Your task to perform on an android device: check battery use Image 0: 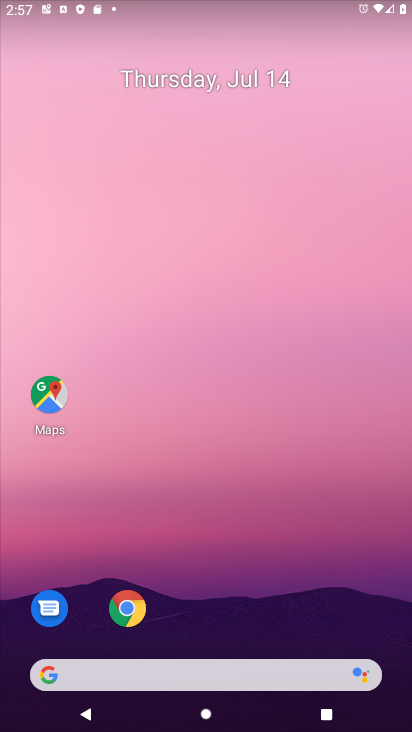
Step 0: drag from (341, 434) to (291, 57)
Your task to perform on an android device: check battery use Image 1: 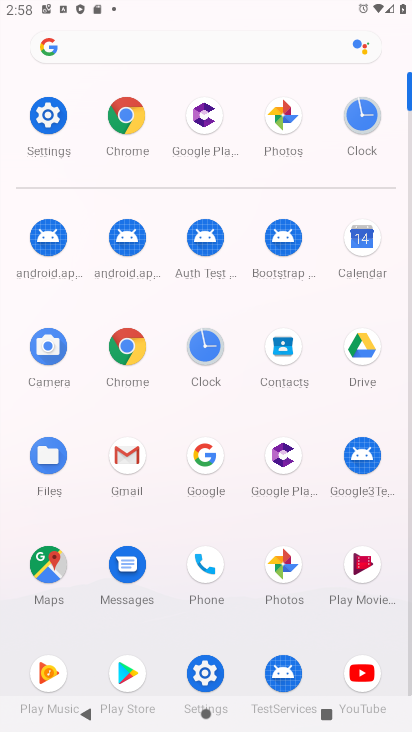
Step 1: click (206, 674)
Your task to perform on an android device: check battery use Image 2: 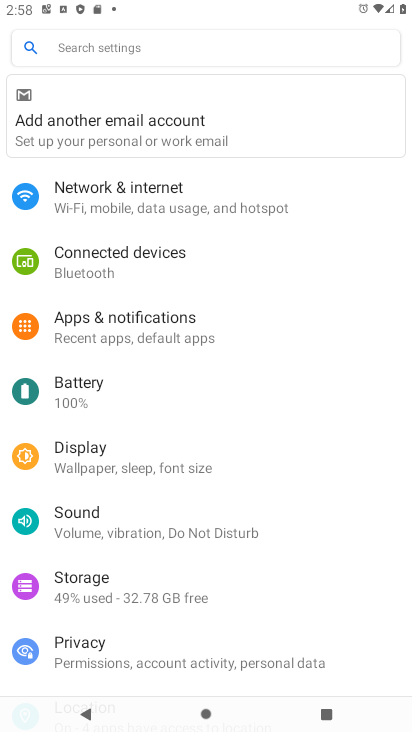
Step 2: click (62, 385)
Your task to perform on an android device: check battery use Image 3: 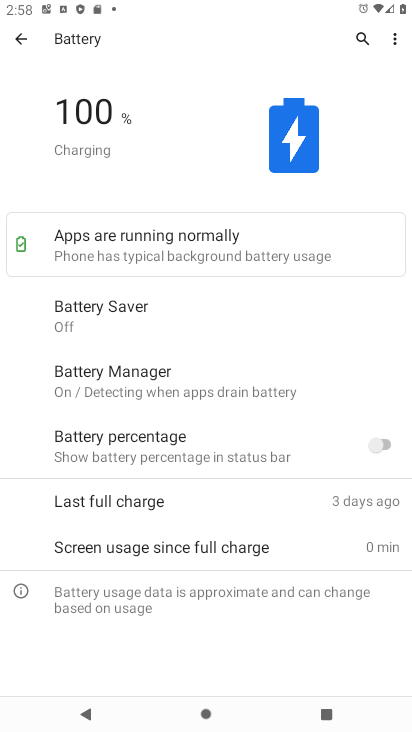
Step 3: click (394, 43)
Your task to perform on an android device: check battery use Image 4: 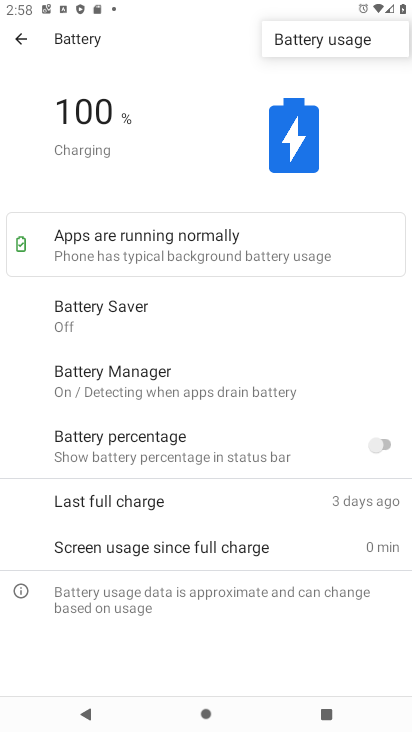
Step 4: click (314, 39)
Your task to perform on an android device: check battery use Image 5: 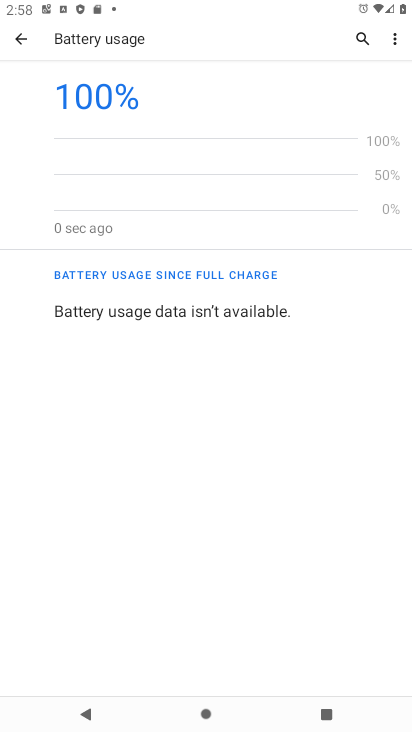
Step 5: task complete